Your task to perform on an android device: Show me recent news Image 0: 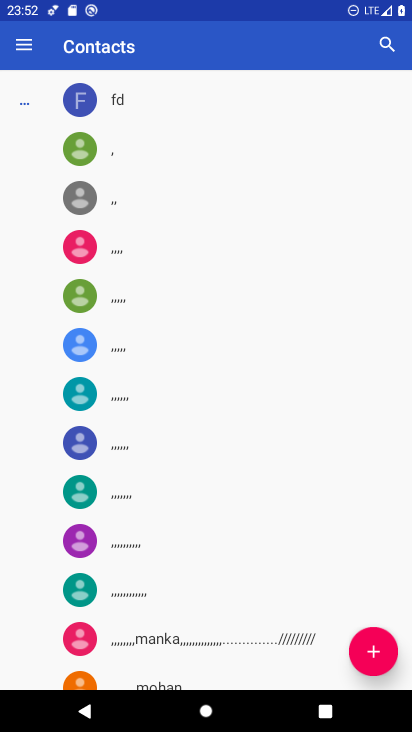
Step 0: press home button
Your task to perform on an android device: Show me recent news Image 1: 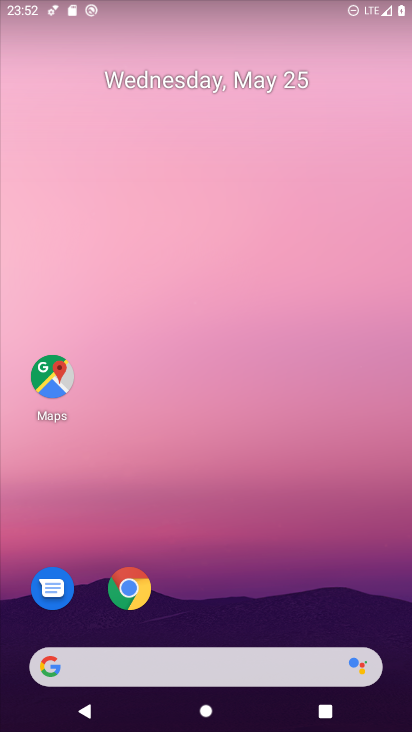
Step 1: drag from (16, 242) to (411, 309)
Your task to perform on an android device: Show me recent news Image 2: 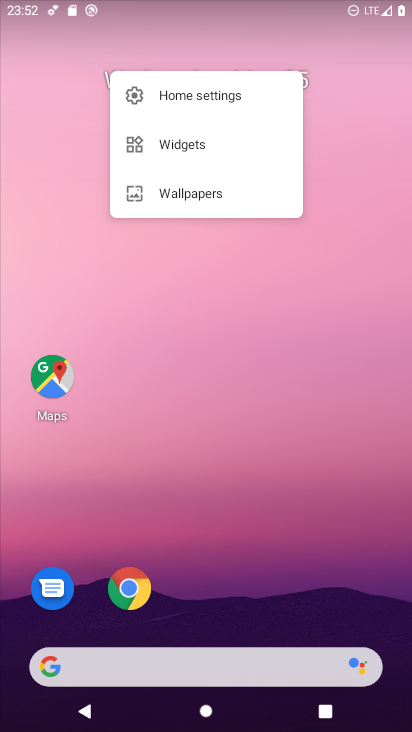
Step 2: click (286, 321)
Your task to perform on an android device: Show me recent news Image 3: 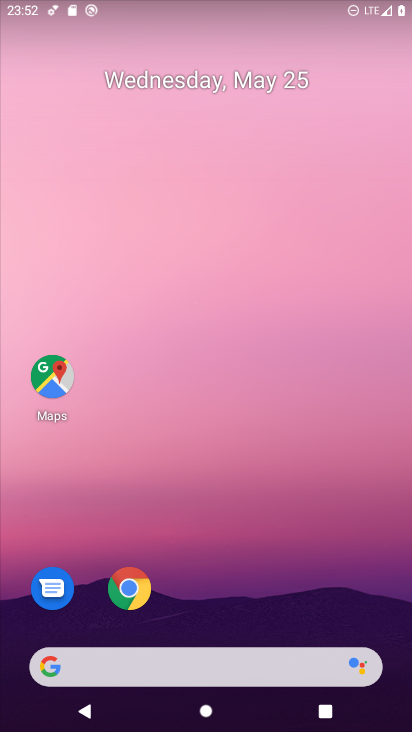
Step 3: task complete